Your task to perform on an android device: turn on data saver in the chrome app Image 0: 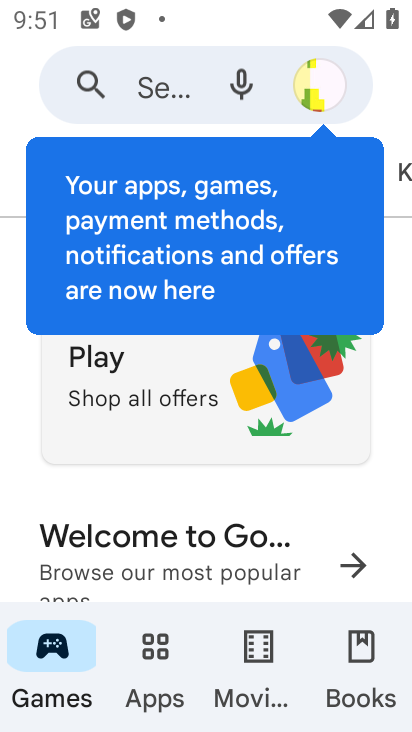
Step 0: press home button
Your task to perform on an android device: turn on data saver in the chrome app Image 1: 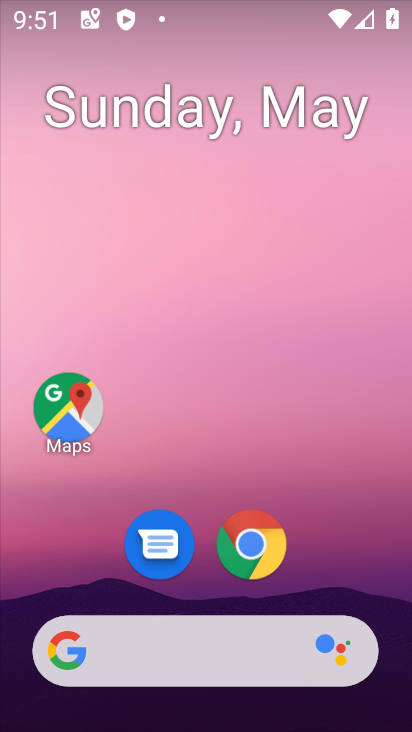
Step 1: drag from (316, 554) to (309, 6)
Your task to perform on an android device: turn on data saver in the chrome app Image 2: 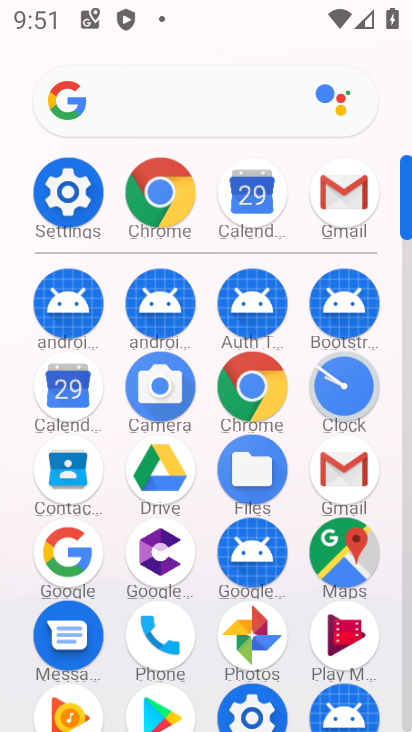
Step 2: click (159, 198)
Your task to perform on an android device: turn on data saver in the chrome app Image 3: 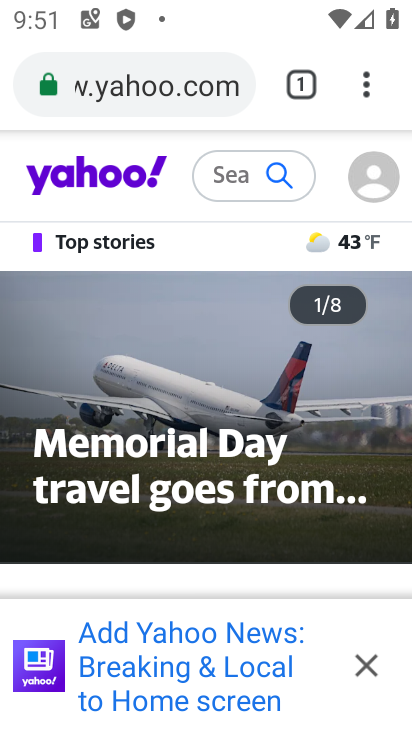
Step 3: drag from (381, 85) to (139, 594)
Your task to perform on an android device: turn on data saver in the chrome app Image 4: 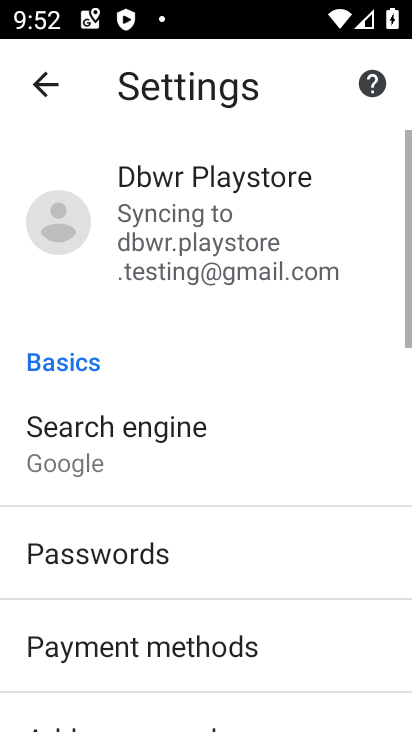
Step 4: drag from (166, 649) to (206, 83)
Your task to perform on an android device: turn on data saver in the chrome app Image 5: 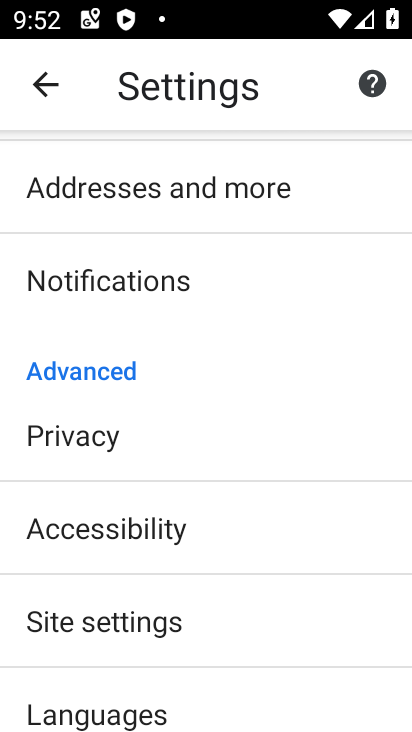
Step 5: drag from (199, 670) to (240, 94)
Your task to perform on an android device: turn on data saver in the chrome app Image 6: 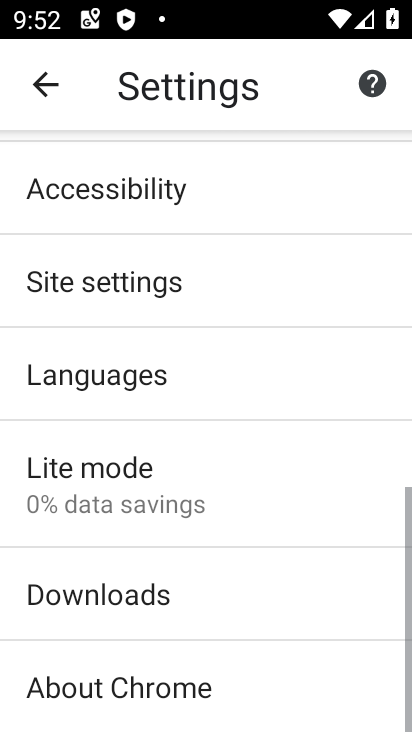
Step 6: click (173, 502)
Your task to perform on an android device: turn on data saver in the chrome app Image 7: 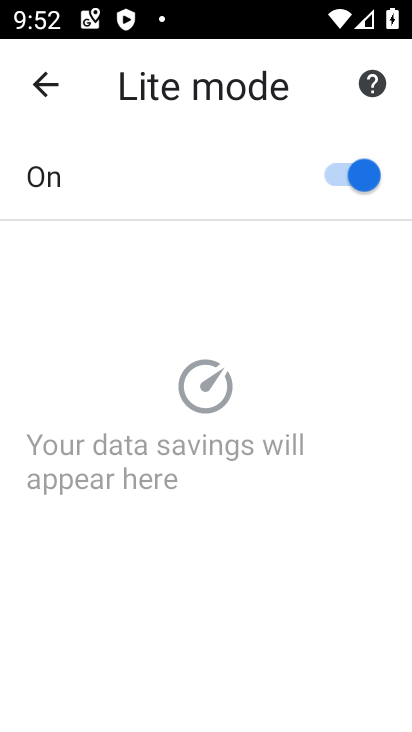
Step 7: task complete